Your task to perform on an android device: What's on my calendar today? Image 0: 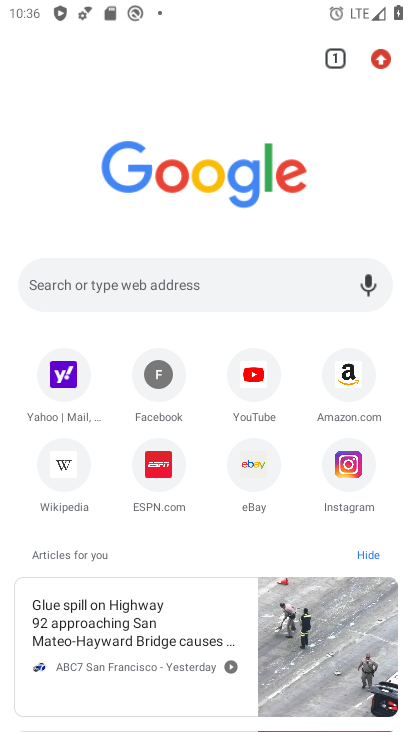
Step 0: press home button
Your task to perform on an android device: What's on my calendar today? Image 1: 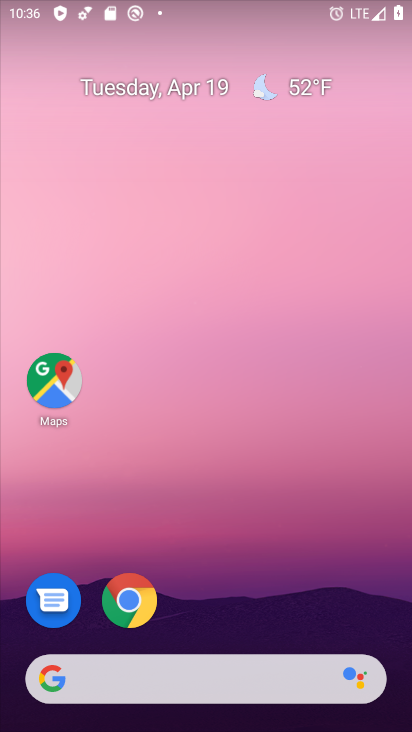
Step 1: drag from (254, 616) to (170, 92)
Your task to perform on an android device: What's on my calendar today? Image 2: 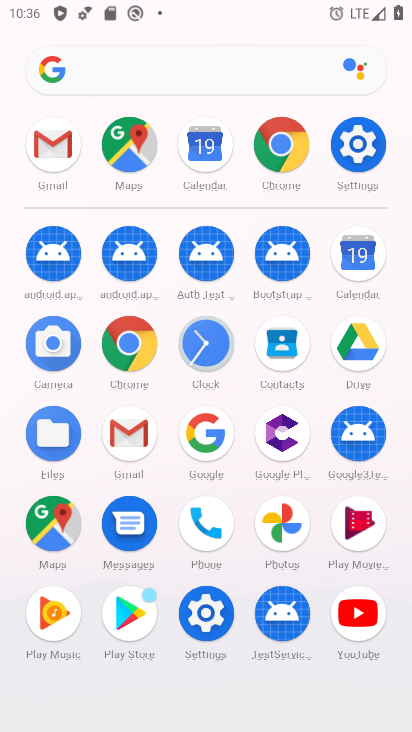
Step 2: click (347, 257)
Your task to perform on an android device: What's on my calendar today? Image 3: 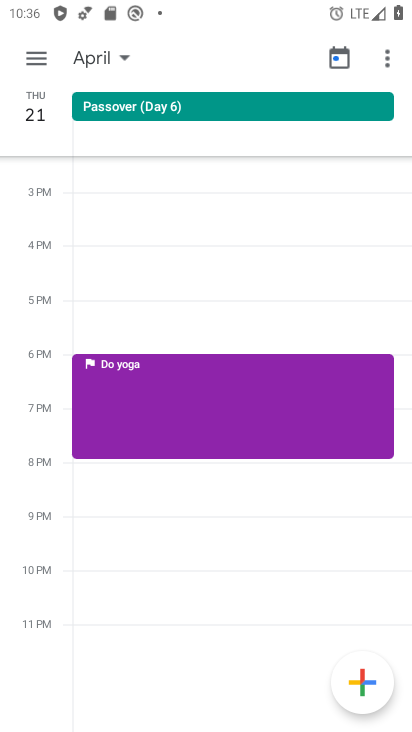
Step 3: click (103, 53)
Your task to perform on an android device: What's on my calendar today? Image 4: 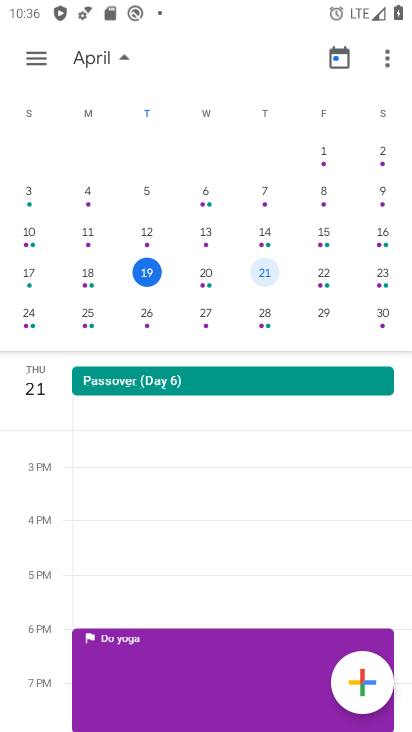
Step 4: click (201, 278)
Your task to perform on an android device: What's on my calendar today? Image 5: 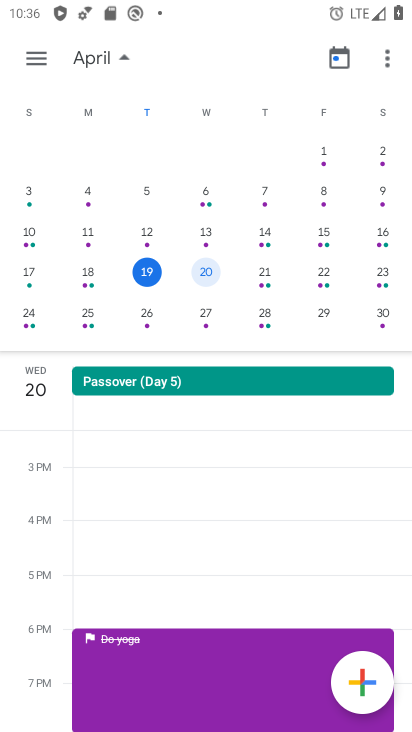
Step 5: task complete